Your task to perform on an android device: stop showing notifications on the lock screen Image 0: 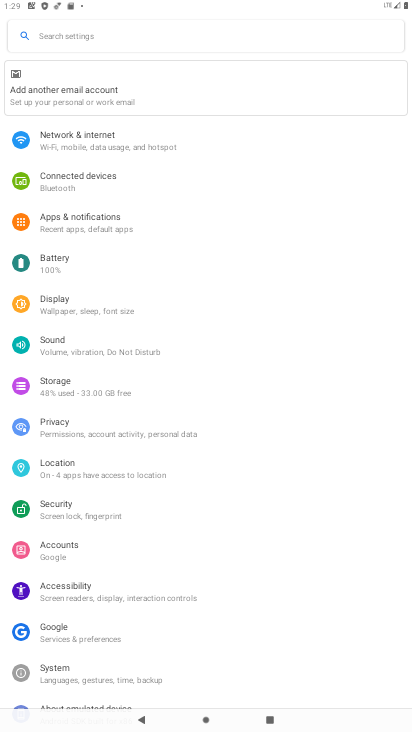
Step 0: press home button
Your task to perform on an android device: stop showing notifications on the lock screen Image 1: 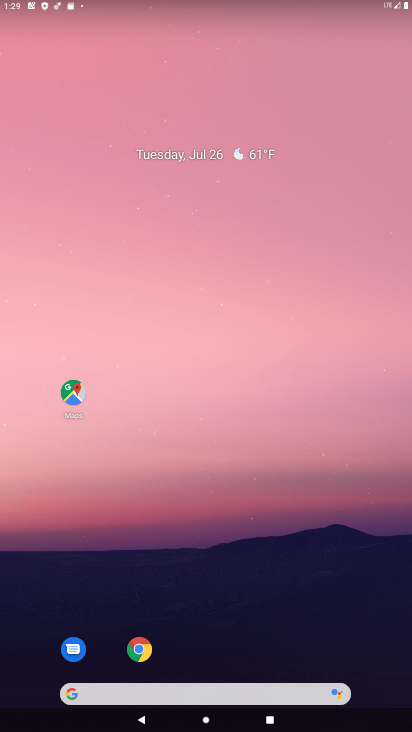
Step 1: click (217, 163)
Your task to perform on an android device: stop showing notifications on the lock screen Image 2: 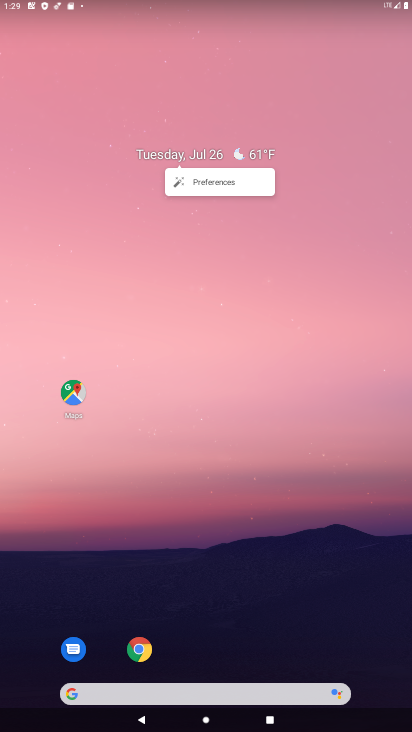
Step 2: drag from (188, 637) to (179, 6)
Your task to perform on an android device: stop showing notifications on the lock screen Image 3: 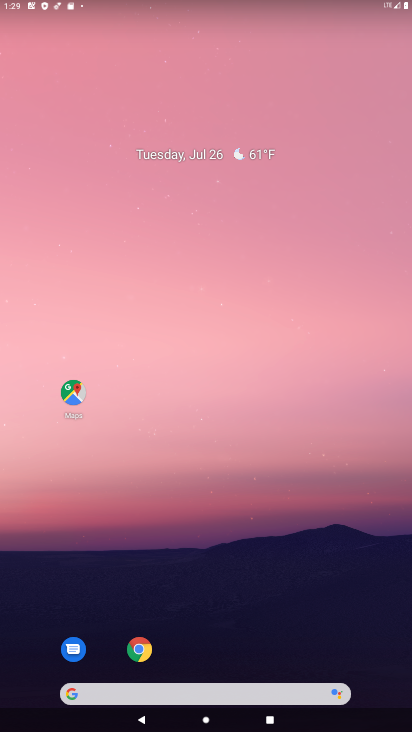
Step 3: drag from (191, 652) to (128, 18)
Your task to perform on an android device: stop showing notifications on the lock screen Image 4: 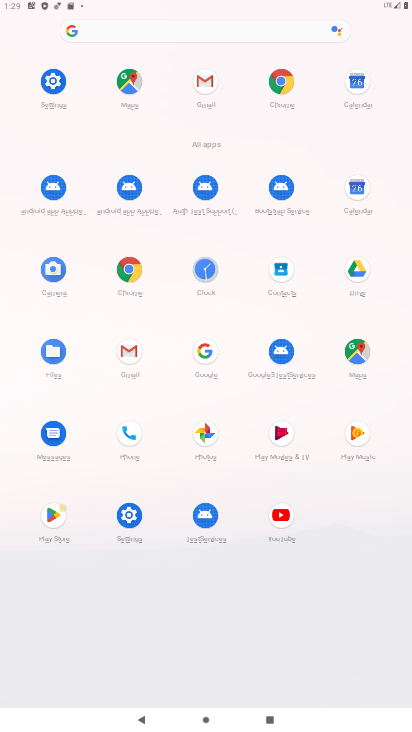
Step 4: click (55, 93)
Your task to perform on an android device: stop showing notifications on the lock screen Image 5: 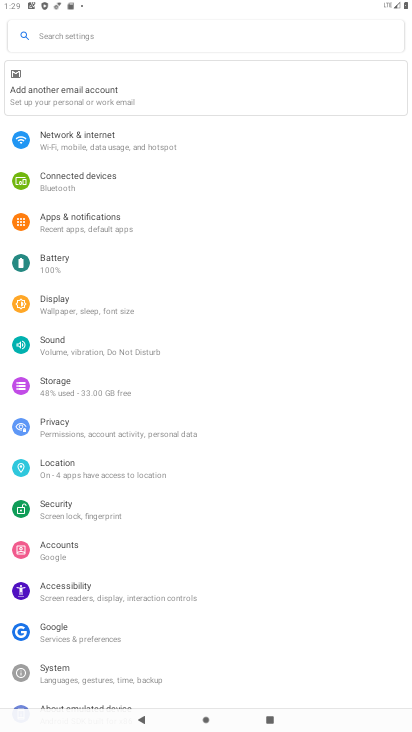
Step 5: click (57, 228)
Your task to perform on an android device: stop showing notifications on the lock screen Image 6: 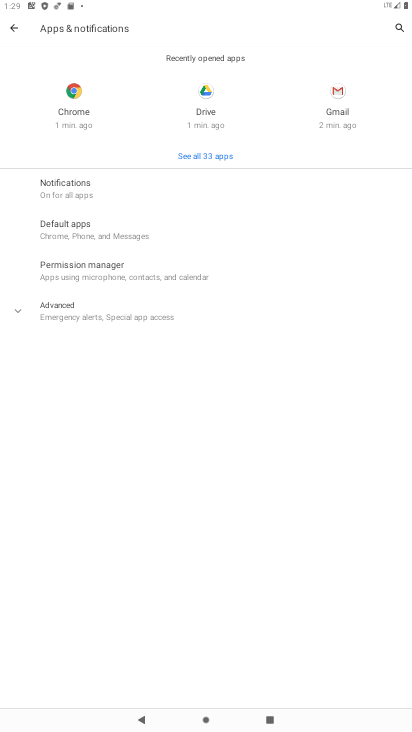
Step 6: click (55, 186)
Your task to perform on an android device: stop showing notifications on the lock screen Image 7: 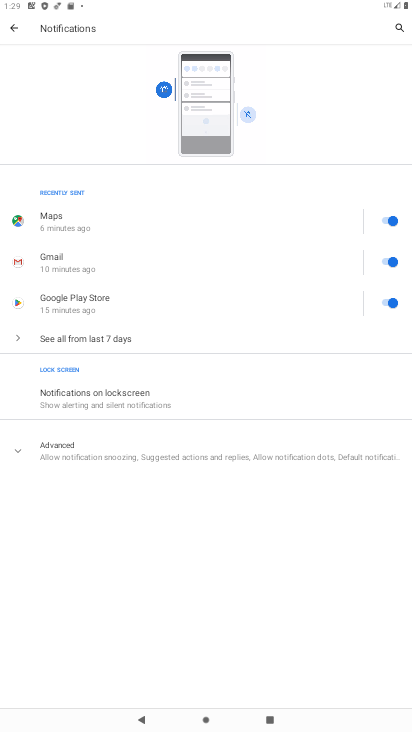
Step 7: click (86, 392)
Your task to perform on an android device: stop showing notifications on the lock screen Image 8: 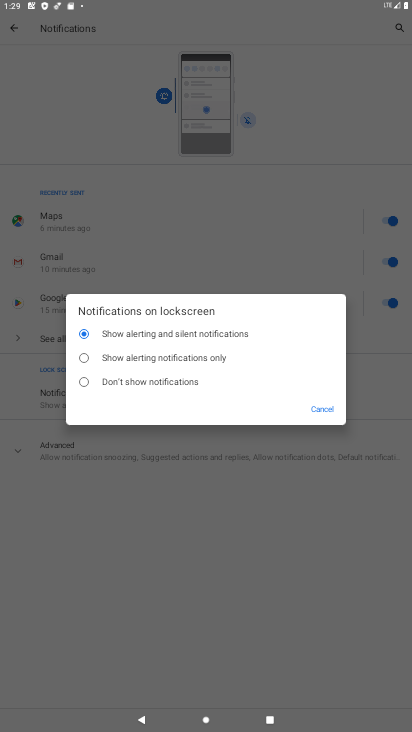
Step 8: click (86, 382)
Your task to perform on an android device: stop showing notifications on the lock screen Image 9: 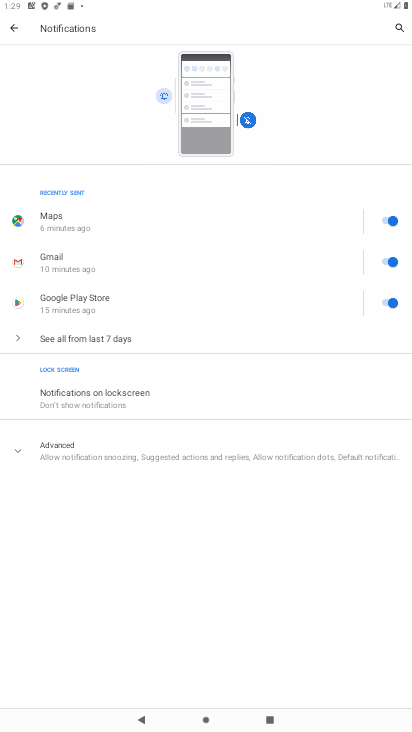
Step 9: task complete